Your task to perform on an android device: Open Reddit.com Image 0: 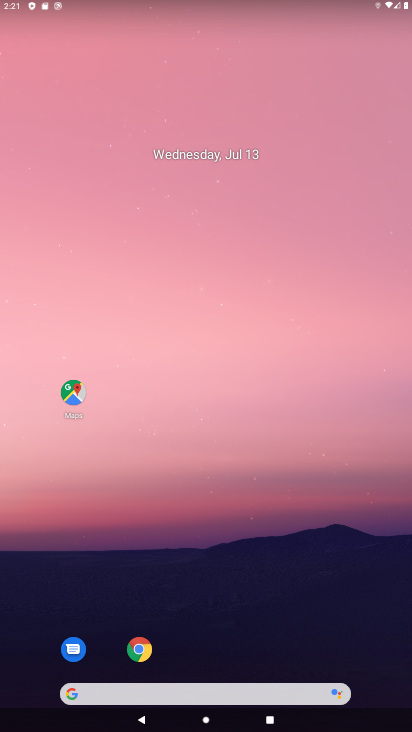
Step 0: click (162, 696)
Your task to perform on an android device: Open Reddit.com Image 1: 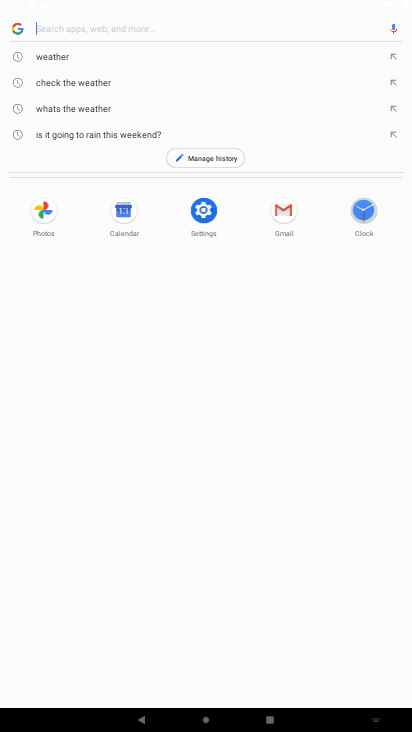
Step 1: type "reddit.com"
Your task to perform on an android device: Open Reddit.com Image 2: 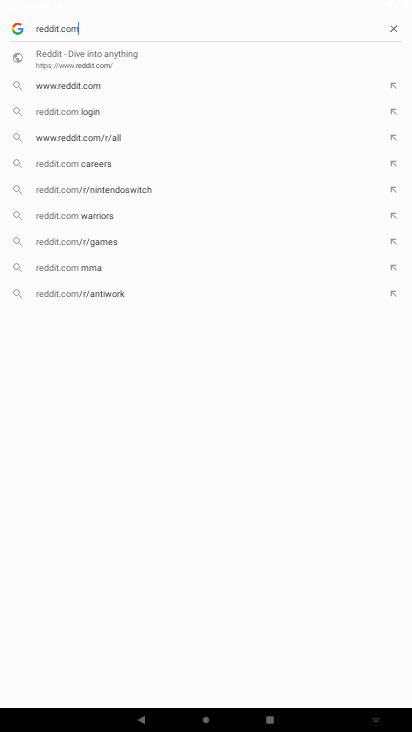
Step 2: click (61, 54)
Your task to perform on an android device: Open Reddit.com Image 3: 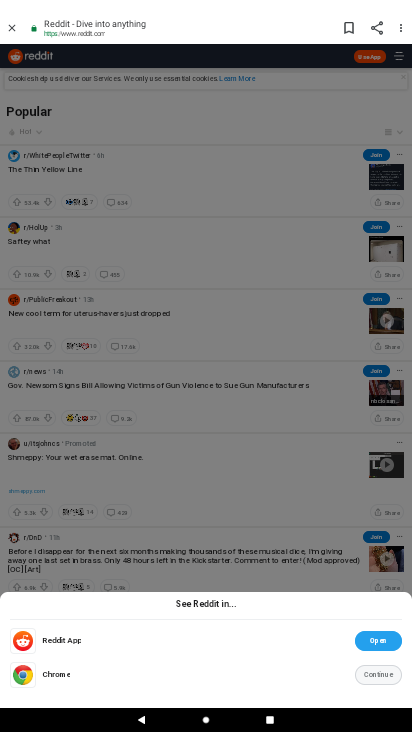
Step 3: task complete